Your task to perform on an android device: Open the stopwatch Image 0: 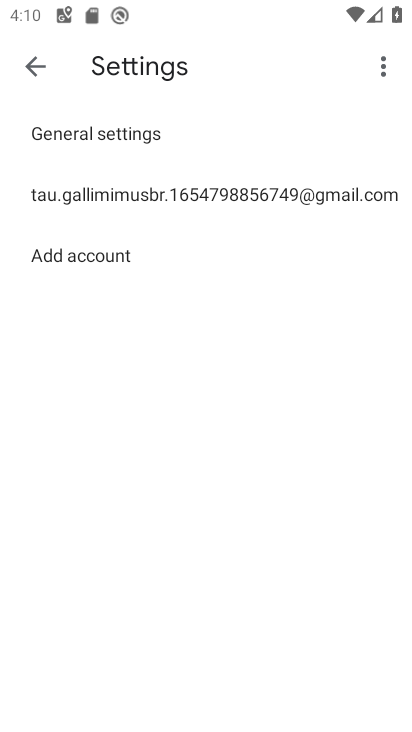
Step 0: press home button
Your task to perform on an android device: Open the stopwatch Image 1: 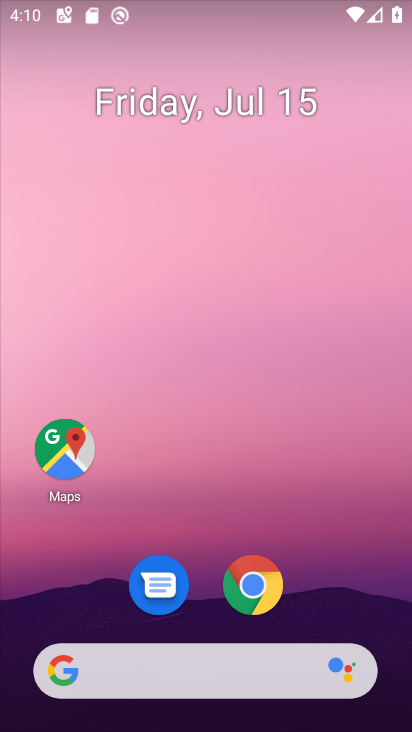
Step 1: drag from (308, 501) to (279, 82)
Your task to perform on an android device: Open the stopwatch Image 2: 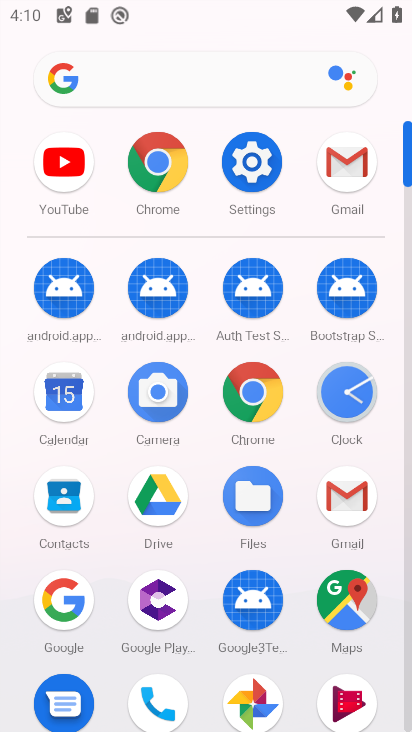
Step 2: click (329, 395)
Your task to perform on an android device: Open the stopwatch Image 3: 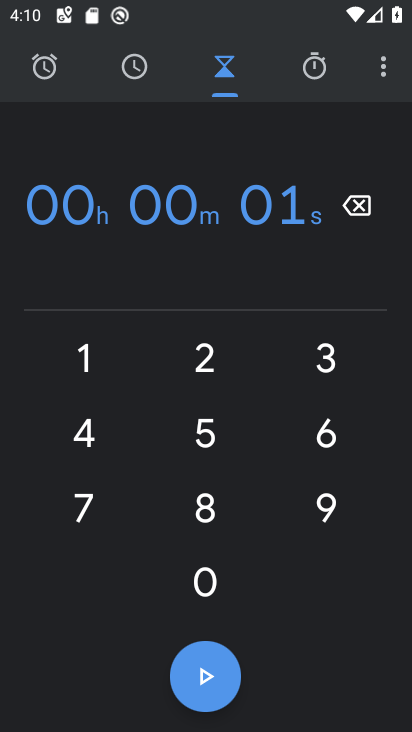
Step 3: click (324, 65)
Your task to perform on an android device: Open the stopwatch Image 4: 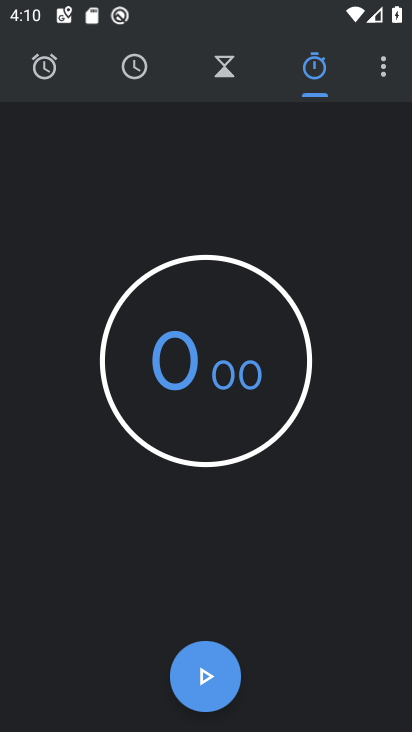
Step 4: task complete